Your task to perform on an android device: find which apps use the phone's location Image 0: 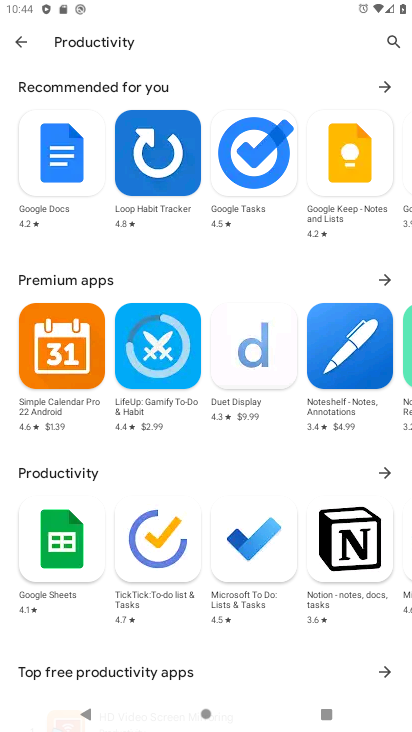
Step 0: press home button
Your task to perform on an android device: find which apps use the phone's location Image 1: 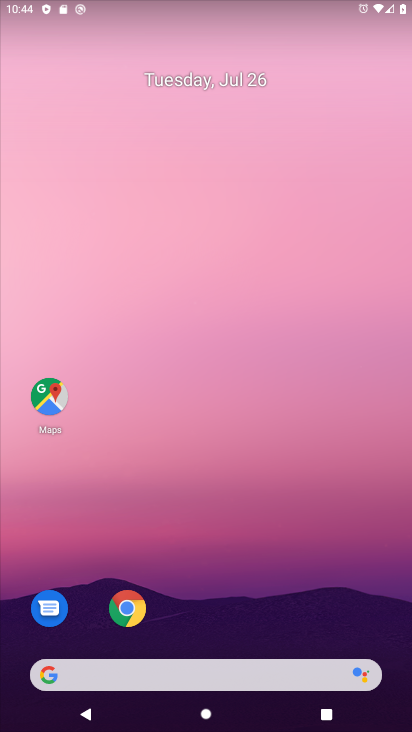
Step 1: drag from (237, 686) to (226, 170)
Your task to perform on an android device: find which apps use the phone's location Image 2: 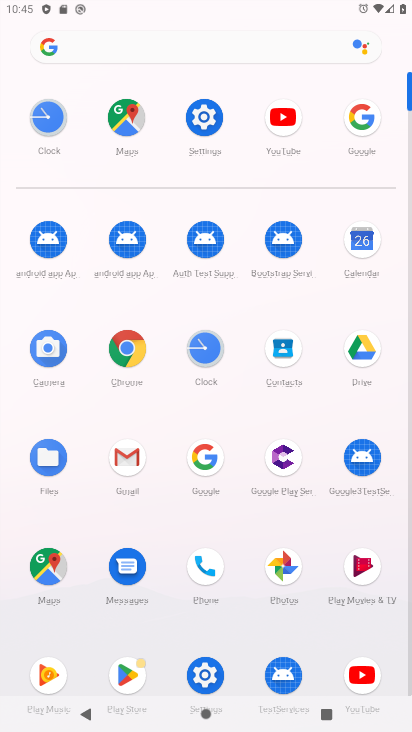
Step 2: click (208, 111)
Your task to perform on an android device: find which apps use the phone's location Image 3: 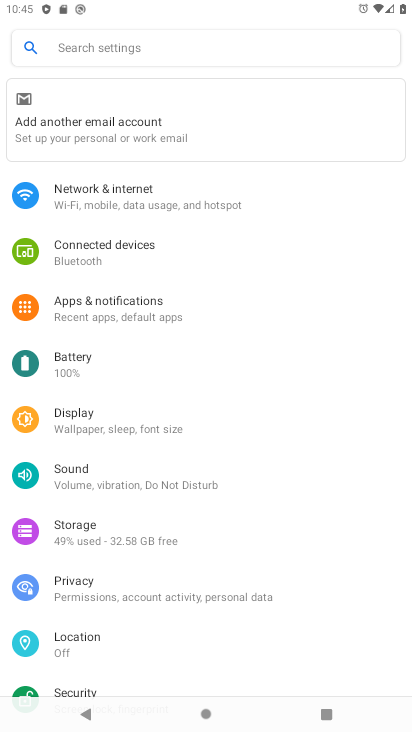
Step 3: click (69, 636)
Your task to perform on an android device: find which apps use the phone's location Image 4: 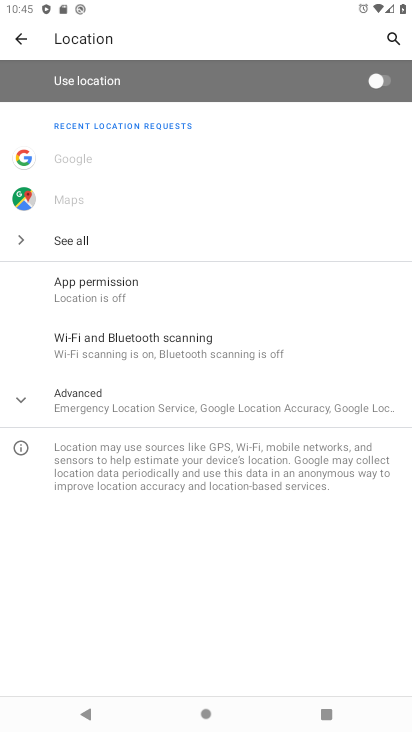
Step 4: click (106, 282)
Your task to perform on an android device: find which apps use the phone's location Image 5: 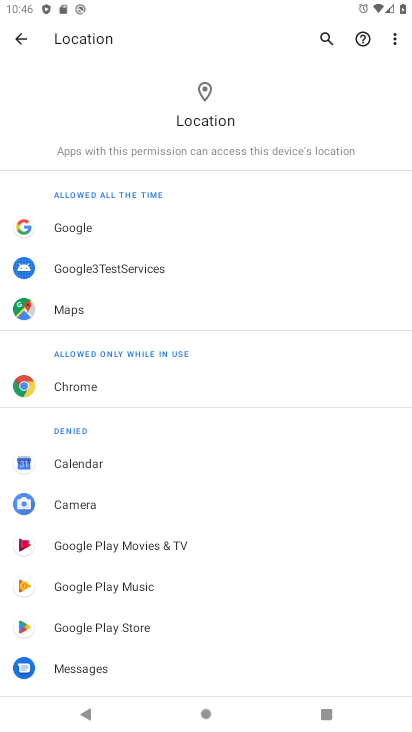
Step 5: task complete